Your task to perform on an android device: Open calendar and show me the fourth week of next month Image 0: 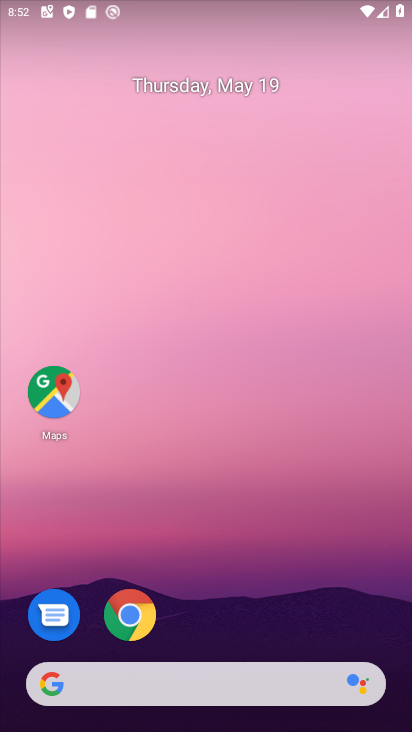
Step 0: press home button
Your task to perform on an android device: Open calendar and show me the fourth week of next month Image 1: 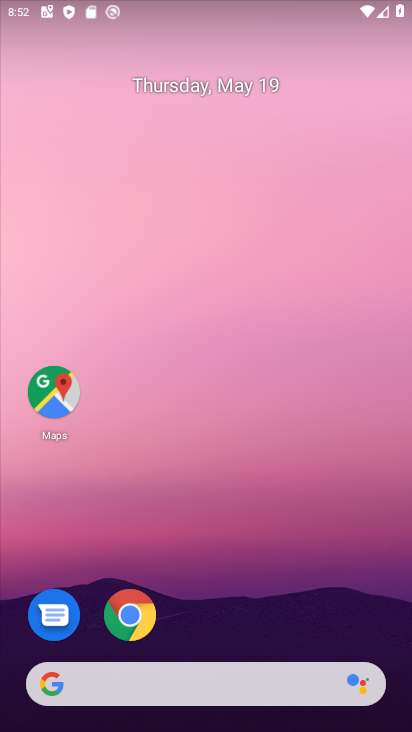
Step 1: drag from (348, 631) to (384, 48)
Your task to perform on an android device: Open calendar and show me the fourth week of next month Image 2: 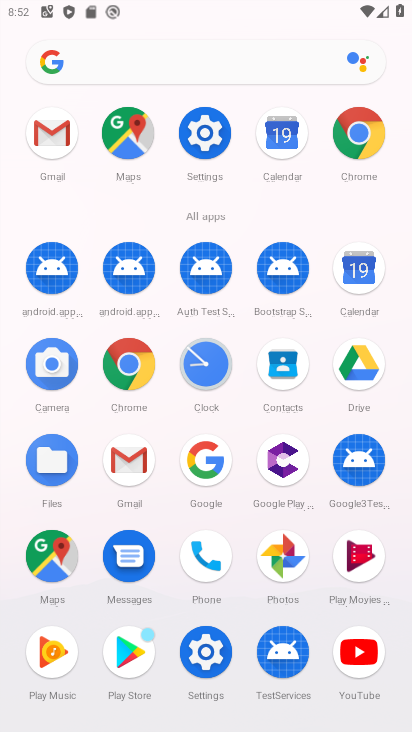
Step 2: click (280, 146)
Your task to perform on an android device: Open calendar and show me the fourth week of next month Image 3: 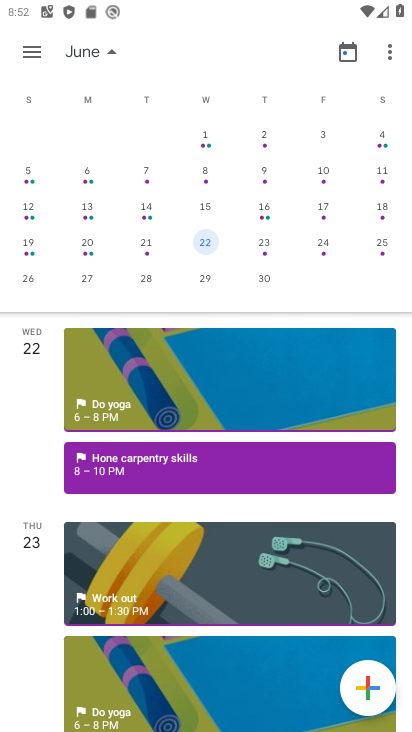
Step 3: task complete